Your task to perform on an android device: turn on sleep mode Image 0: 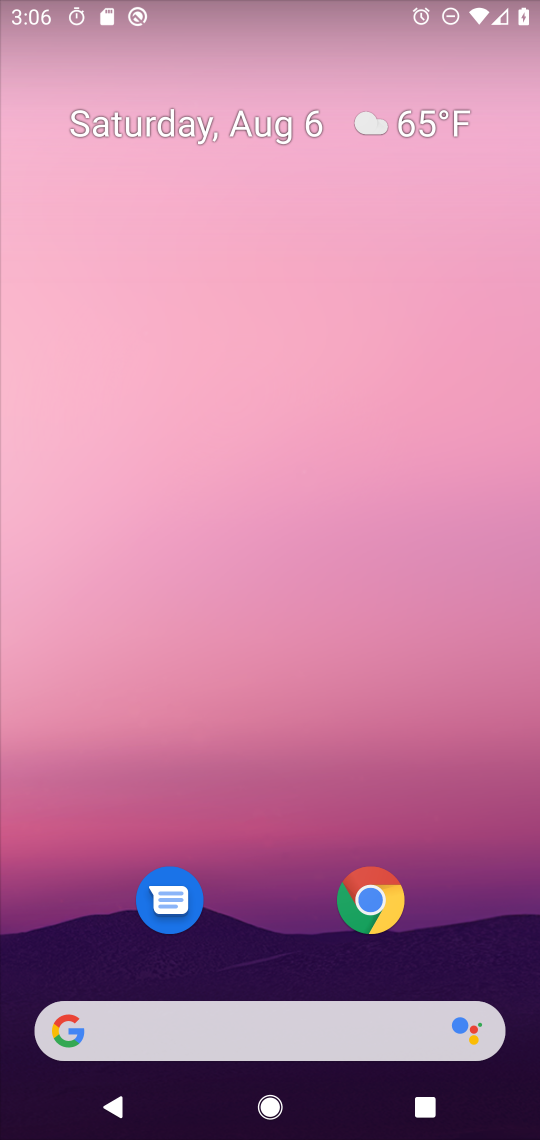
Step 0: drag from (257, 829) to (257, 95)
Your task to perform on an android device: turn on sleep mode Image 1: 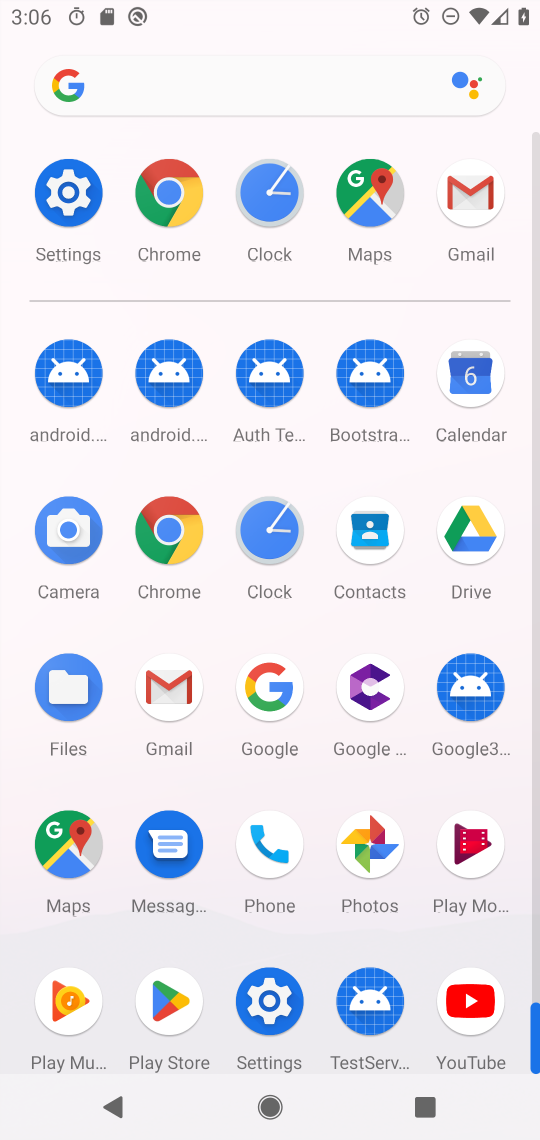
Step 1: click (76, 183)
Your task to perform on an android device: turn on sleep mode Image 2: 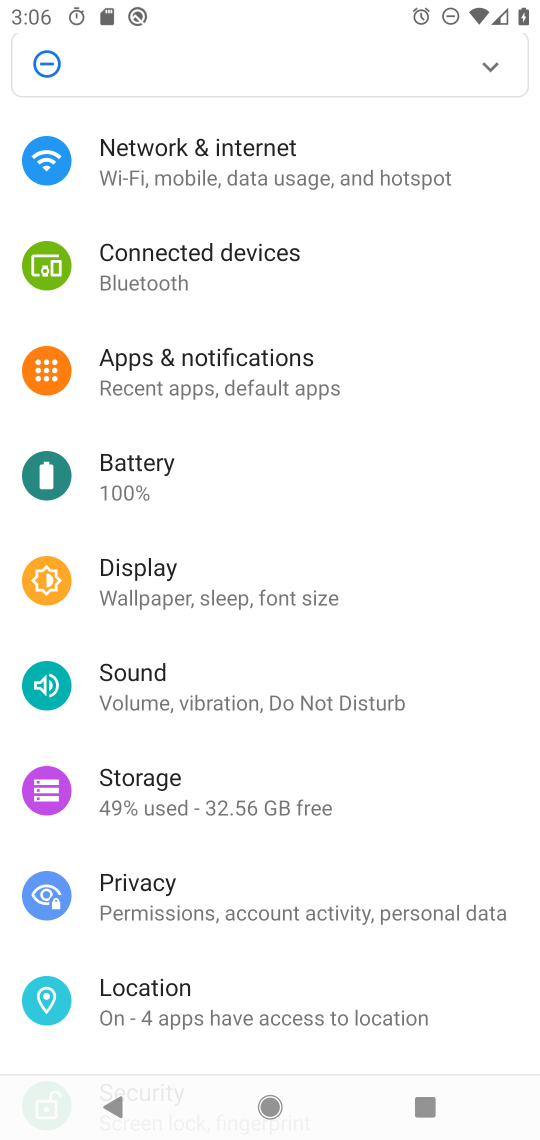
Step 2: click (114, 568)
Your task to perform on an android device: turn on sleep mode Image 3: 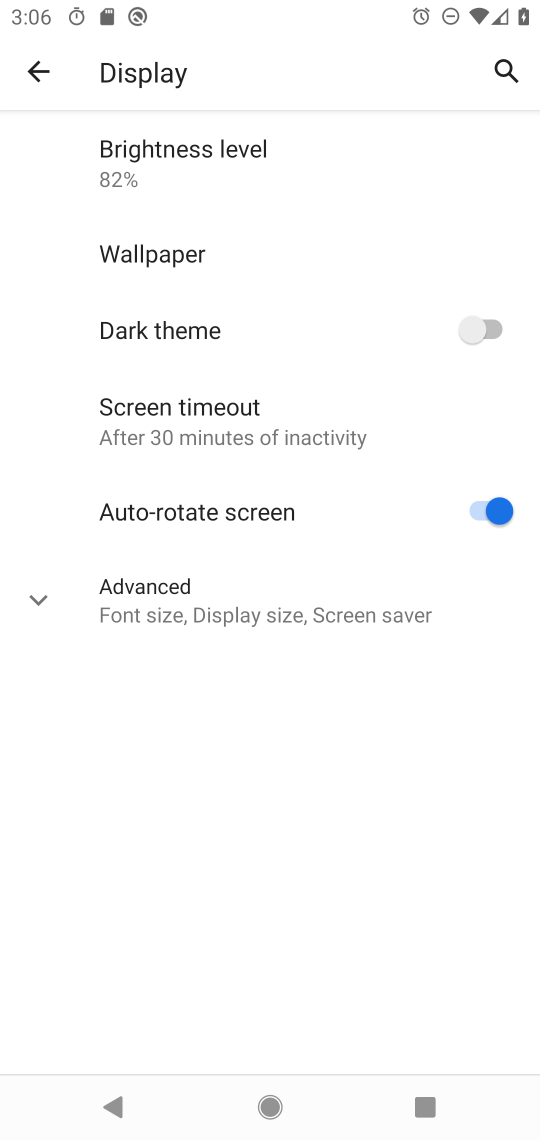
Step 3: task complete